Your task to perform on an android device: turn on bluetooth scan Image 0: 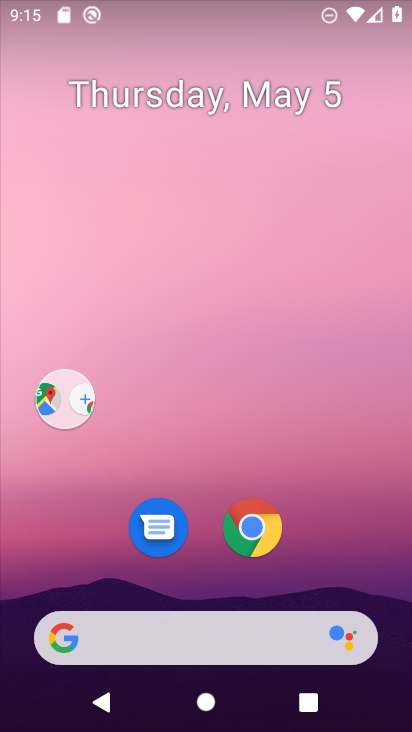
Step 0: drag from (360, 553) to (161, 9)
Your task to perform on an android device: turn on bluetooth scan Image 1: 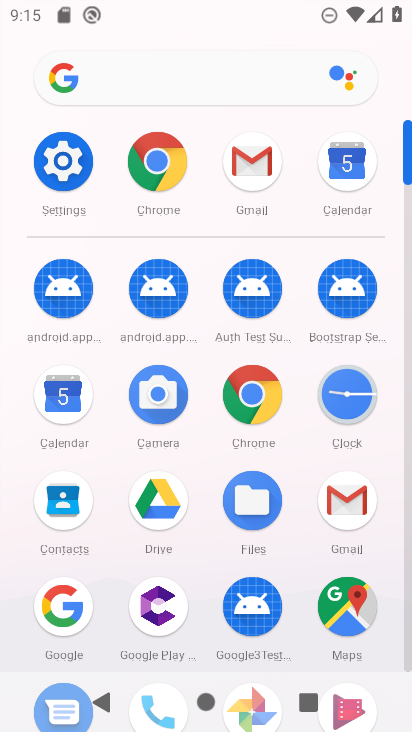
Step 1: click (64, 156)
Your task to perform on an android device: turn on bluetooth scan Image 2: 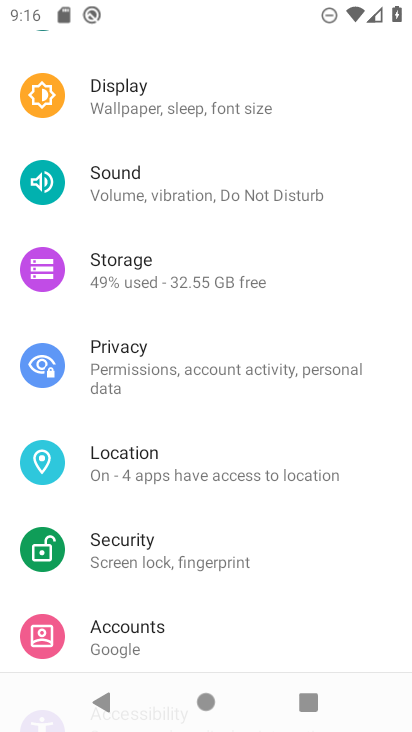
Step 2: click (171, 476)
Your task to perform on an android device: turn on bluetooth scan Image 3: 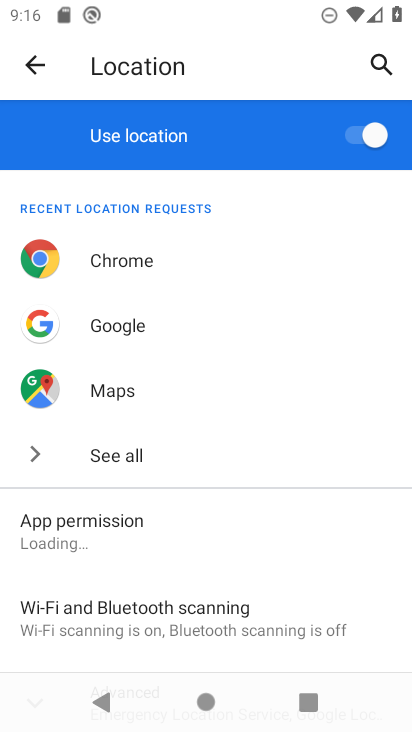
Step 3: click (109, 618)
Your task to perform on an android device: turn on bluetooth scan Image 4: 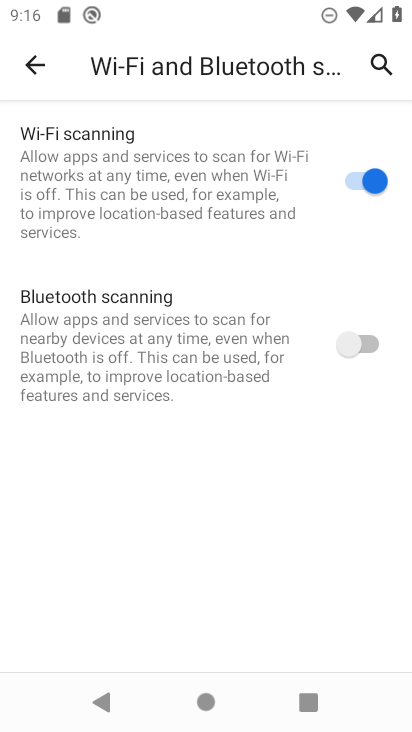
Step 4: click (353, 338)
Your task to perform on an android device: turn on bluetooth scan Image 5: 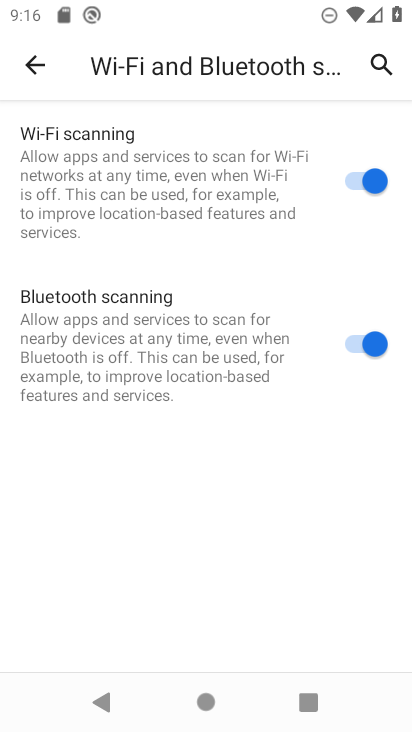
Step 5: task complete